Your task to perform on an android device: Open Google Chrome and open the bookmarks view Image 0: 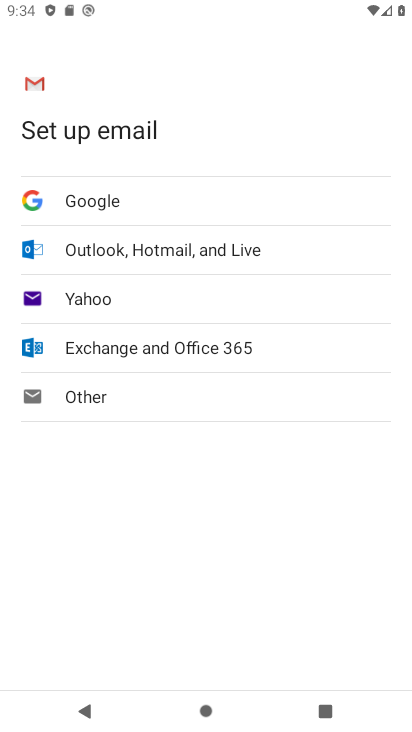
Step 0: press home button
Your task to perform on an android device: Open Google Chrome and open the bookmarks view Image 1: 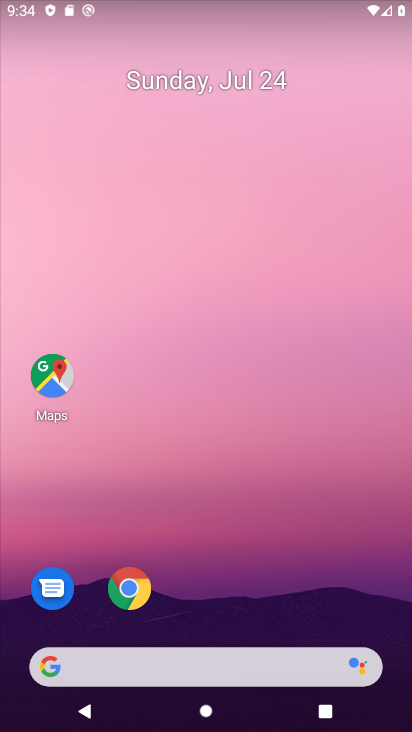
Step 1: drag from (219, 677) to (192, 325)
Your task to perform on an android device: Open Google Chrome and open the bookmarks view Image 2: 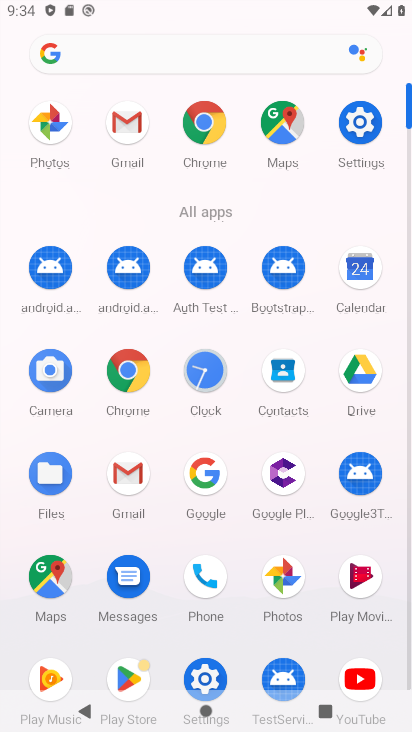
Step 2: click (147, 375)
Your task to perform on an android device: Open Google Chrome and open the bookmarks view Image 3: 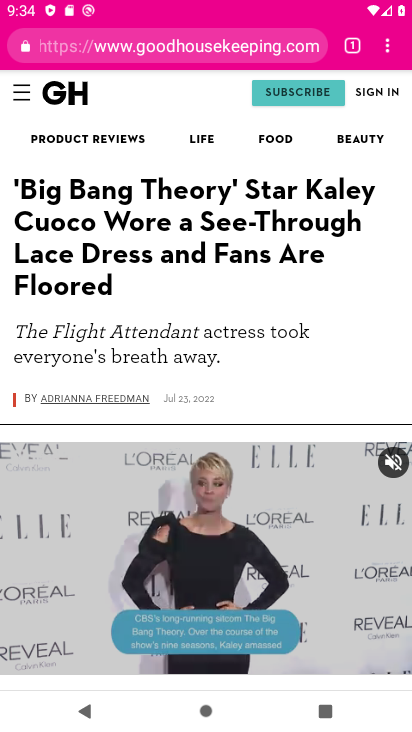
Step 3: drag from (397, 46) to (340, 293)
Your task to perform on an android device: Open Google Chrome and open the bookmarks view Image 4: 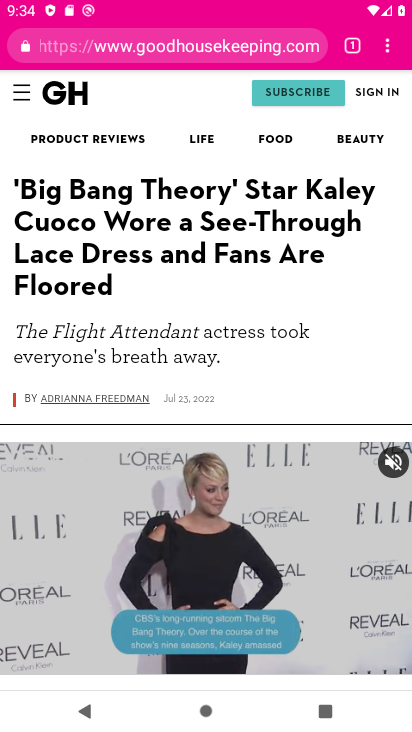
Step 4: click (341, 178)
Your task to perform on an android device: Open Google Chrome and open the bookmarks view Image 5: 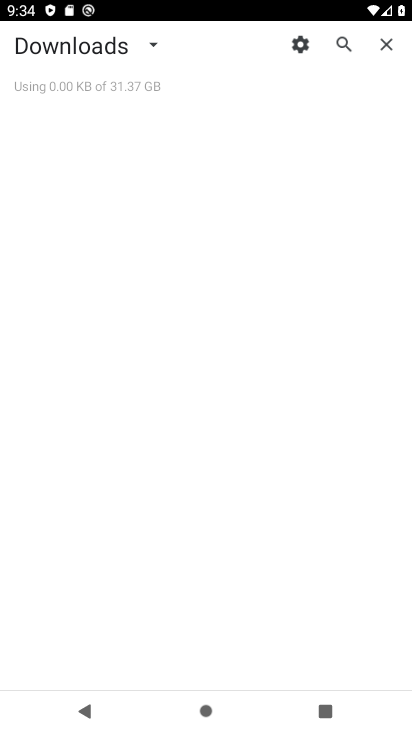
Step 5: task complete